Your task to perform on an android device: change alarm snooze length Image 0: 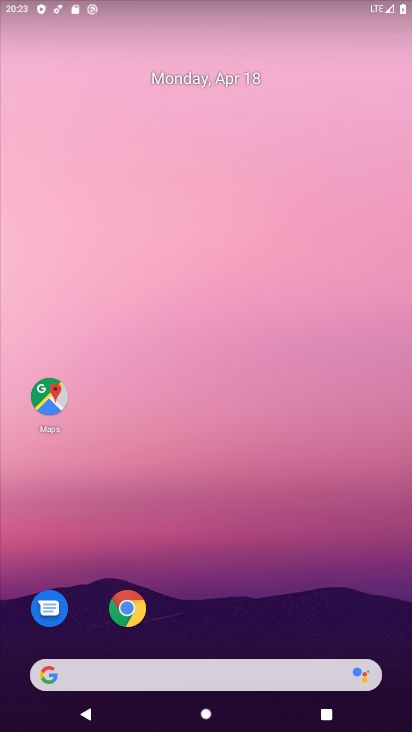
Step 0: drag from (227, 581) to (288, 170)
Your task to perform on an android device: change alarm snooze length Image 1: 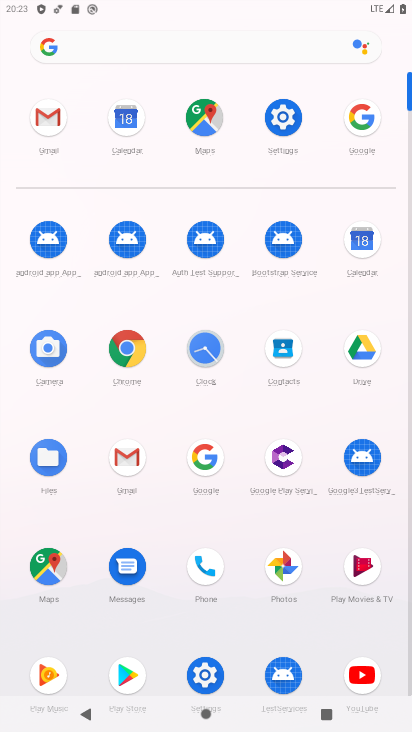
Step 1: click (204, 348)
Your task to perform on an android device: change alarm snooze length Image 2: 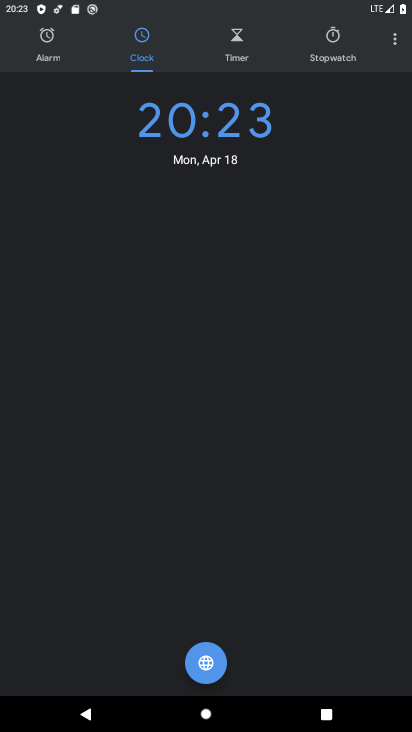
Step 2: click (391, 36)
Your task to perform on an android device: change alarm snooze length Image 3: 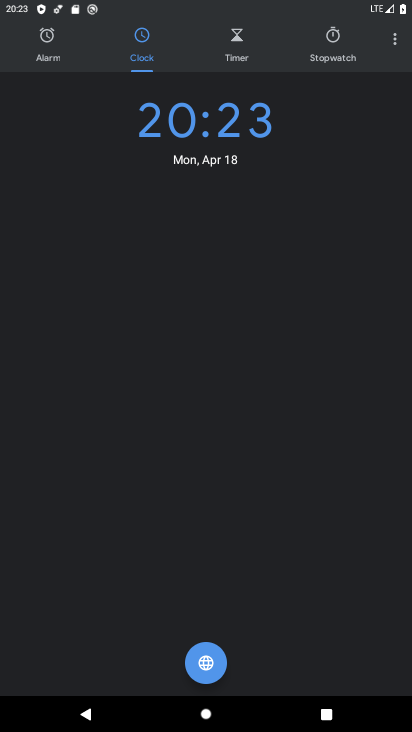
Step 3: click (394, 41)
Your task to perform on an android device: change alarm snooze length Image 4: 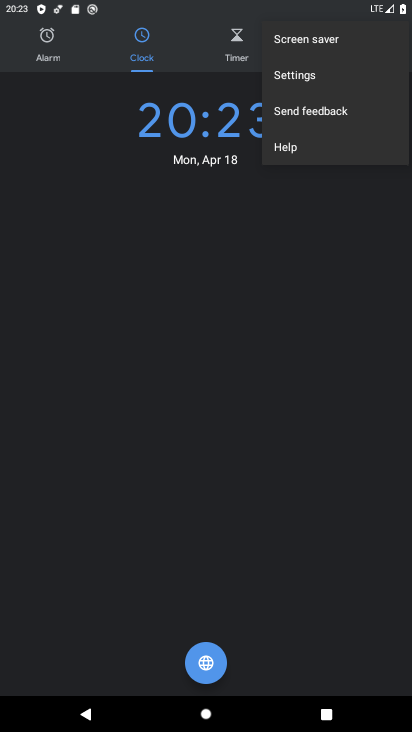
Step 4: click (337, 80)
Your task to perform on an android device: change alarm snooze length Image 5: 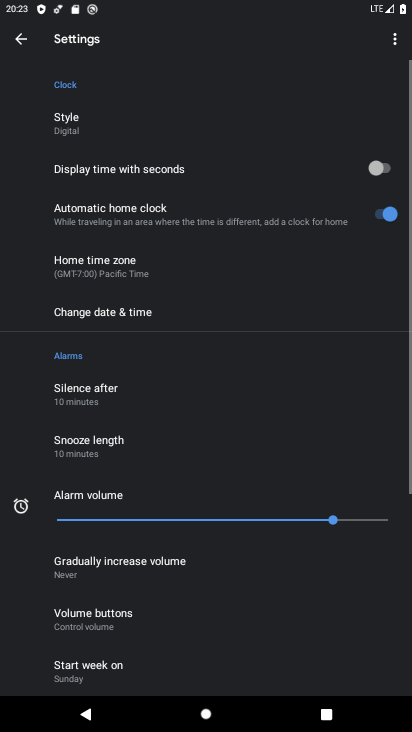
Step 5: click (113, 441)
Your task to perform on an android device: change alarm snooze length Image 6: 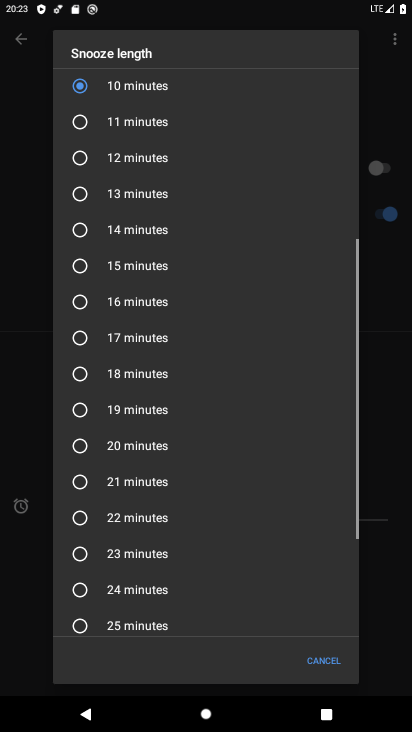
Step 6: click (83, 268)
Your task to perform on an android device: change alarm snooze length Image 7: 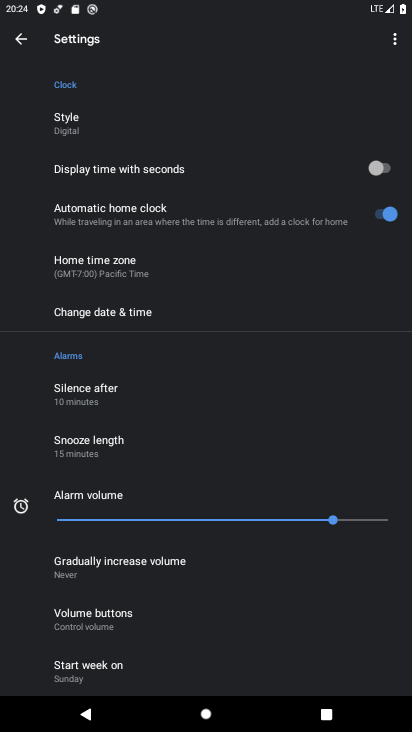
Step 7: task complete